Your task to perform on an android device: change notifications settings Image 0: 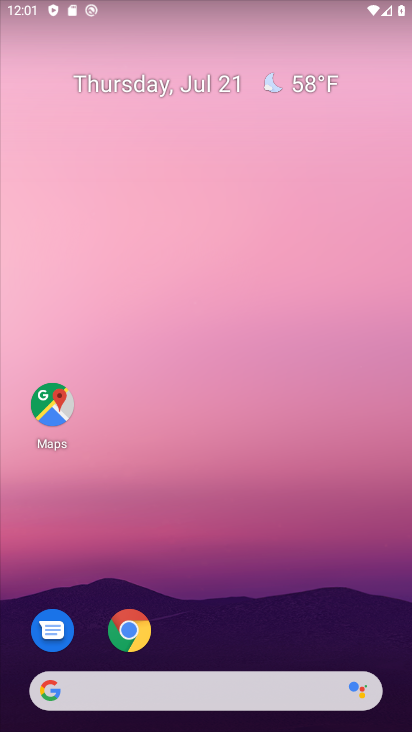
Step 0: drag from (228, 672) to (245, 39)
Your task to perform on an android device: change notifications settings Image 1: 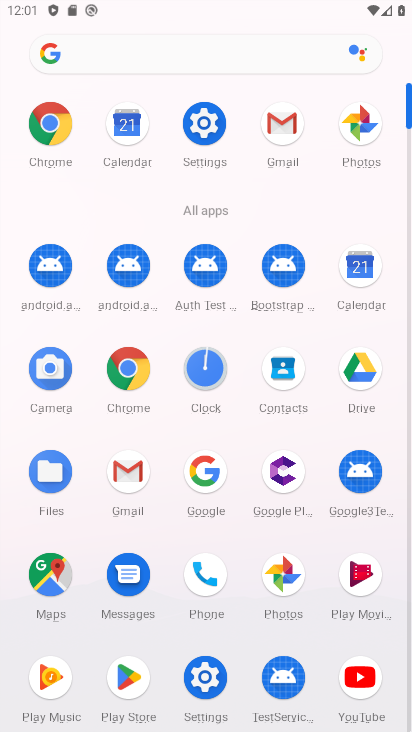
Step 1: click (211, 144)
Your task to perform on an android device: change notifications settings Image 2: 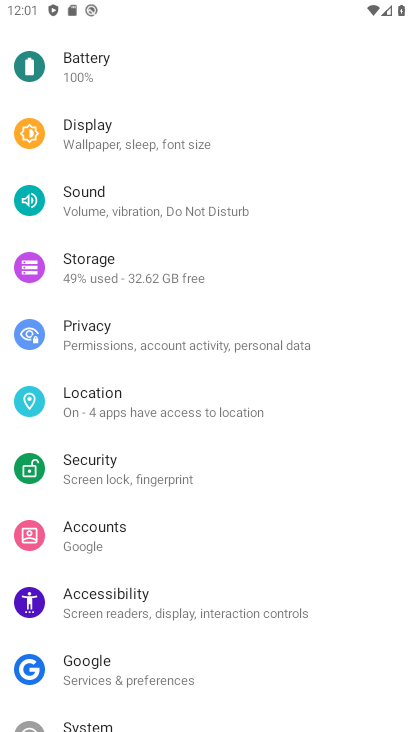
Step 2: drag from (123, 121) to (150, 582)
Your task to perform on an android device: change notifications settings Image 3: 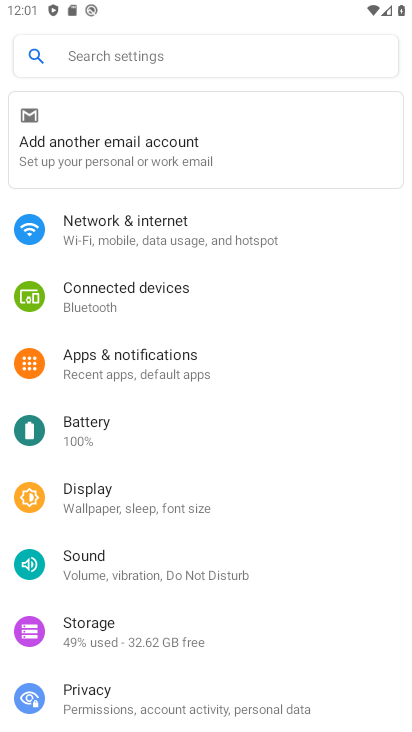
Step 3: click (109, 551)
Your task to perform on an android device: change notifications settings Image 4: 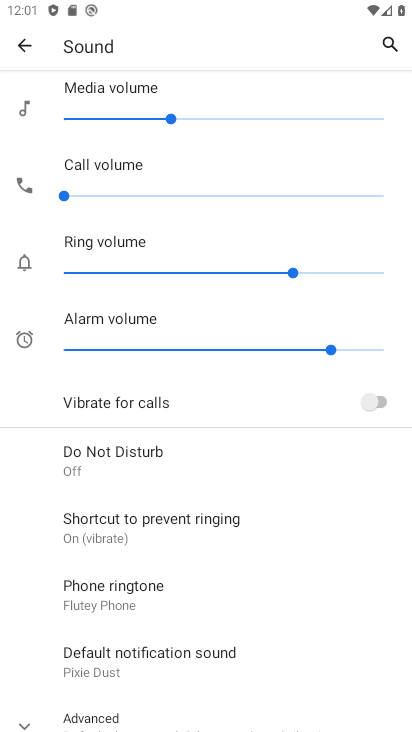
Step 4: click (150, 666)
Your task to perform on an android device: change notifications settings Image 5: 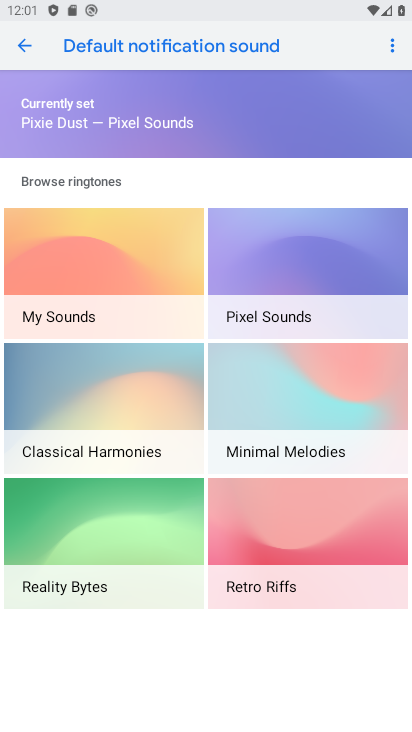
Step 5: click (154, 549)
Your task to perform on an android device: change notifications settings Image 6: 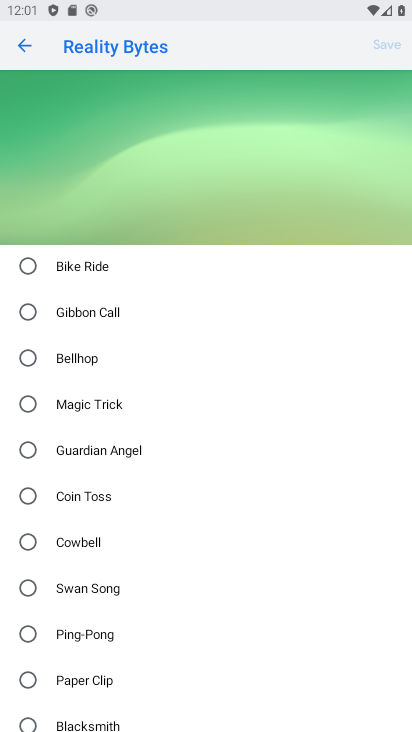
Step 6: click (104, 453)
Your task to perform on an android device: change notifications settings Image 7: 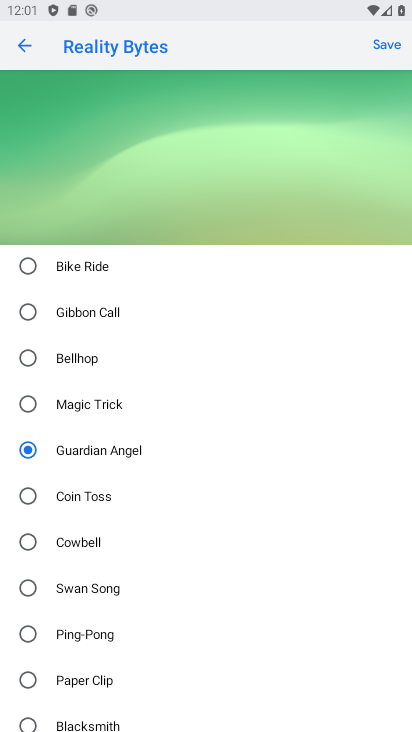
Step 7: click (386, 47)
Your task to perform on an android device: change notifications settings Image 8: 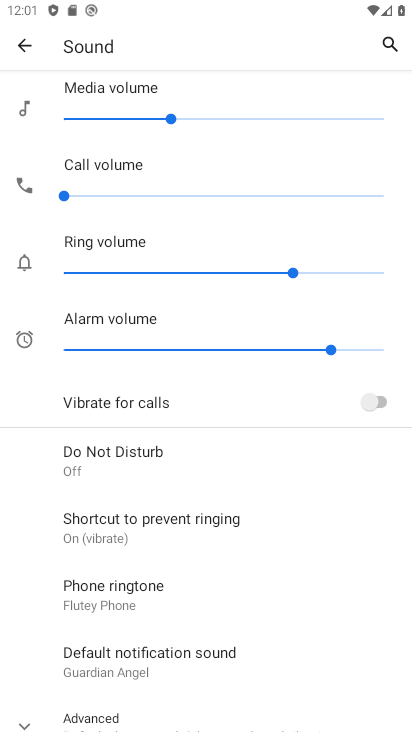
Step 8: task complete